Your task to perform on an android device: turn on location history Image 0: 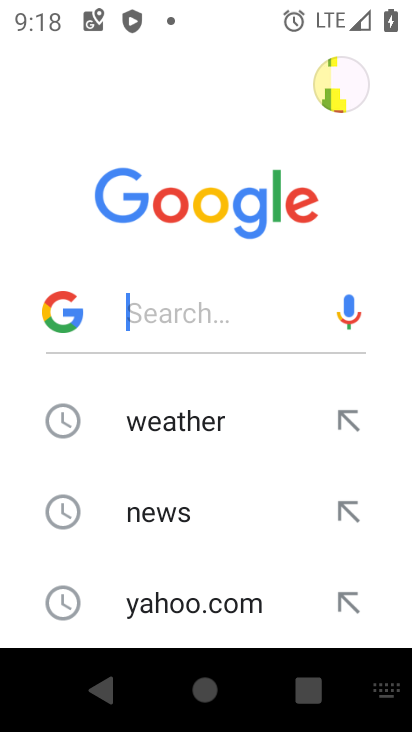
Step 0: press home button
Your task to perform on an android device: turn on location history Image 1: 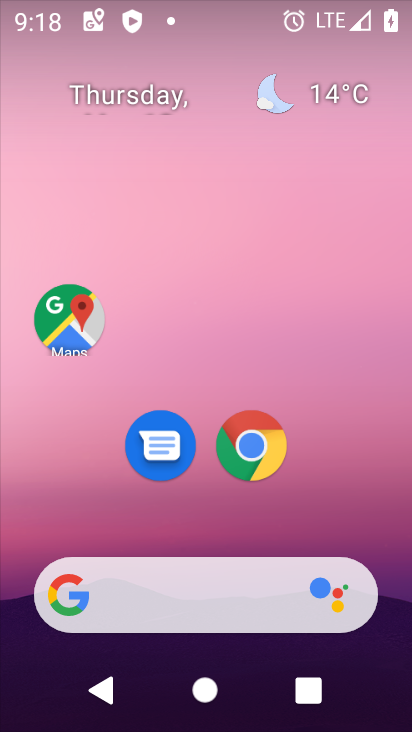
Step 1: drag from (223, 725) to (208, 0)
Your task to perform on an android device: turn on location history Image 2: 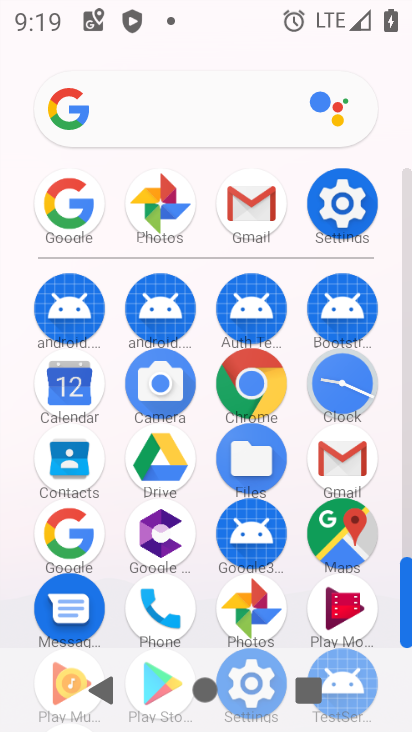
Step 2: click (340, 194)
Your task to perform on an android device: turn on location history Image 3: 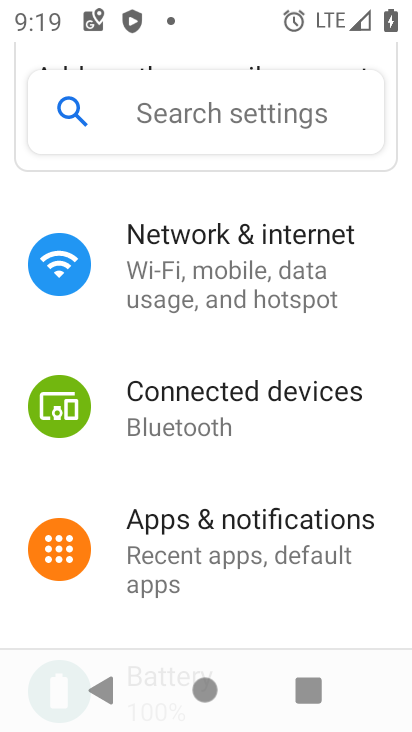
Step 3: drag from (170, 570) to (206, 255)
Your task to perform on an android device: turn on location history Image 4: 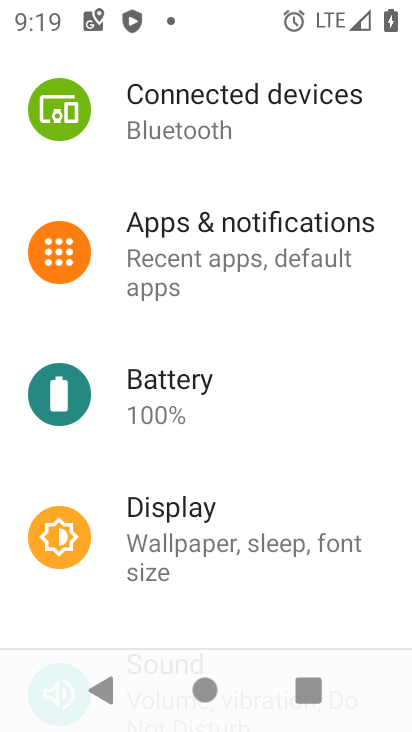
Step 4: drag from (181, 590) to (207, 204)
Your task to perform on an android device: turn on location history Image 5: 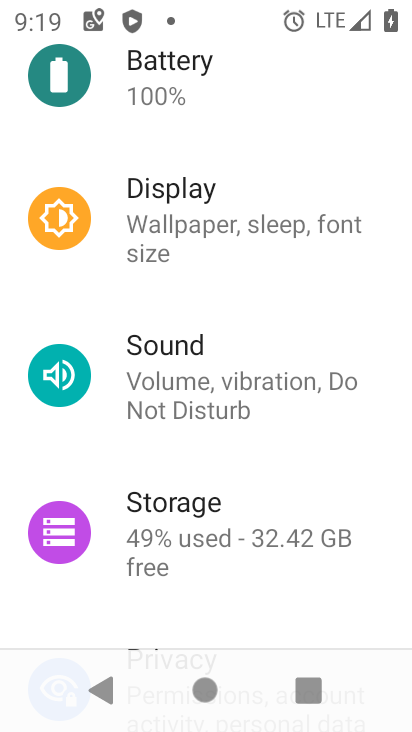
Step 5: drag from (201, 613) to (214, 203)
Your task to perform on an android device: turn on location history Image 6: 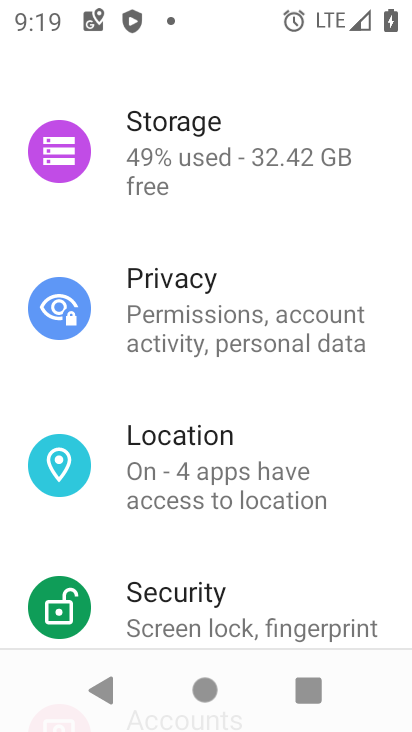
Step 6: click (179, 474)
Your task to perform on an android device: turn on location history Image 7: 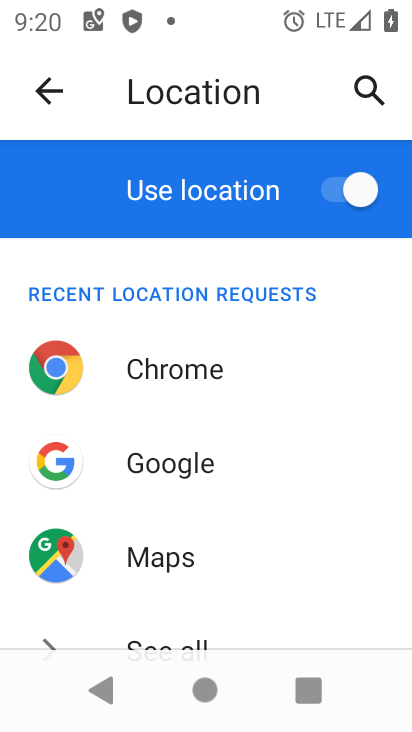
Step 7: task complete